Your task to perform on an android device: toggle location history Image 0: 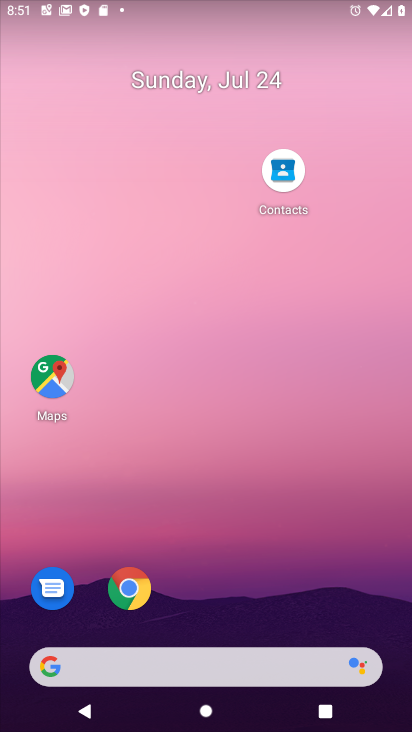
Step 0: press home button
Your task to perform on an android device: toggle location history Image 1: 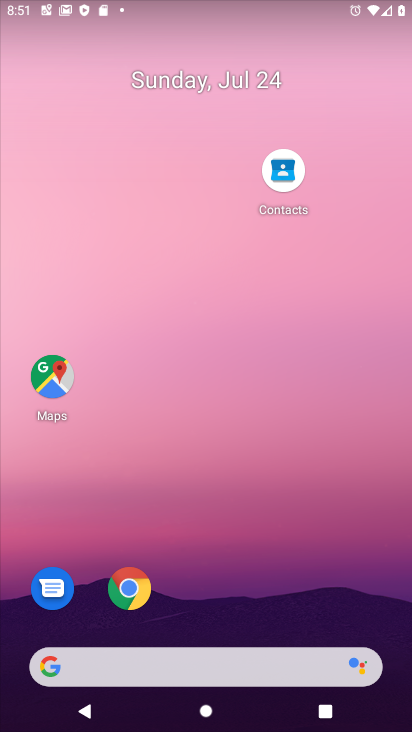
Step 1: drag from (197, 617) to (252, 11)
Your task to perform on an android device: toggle location history Image 2: 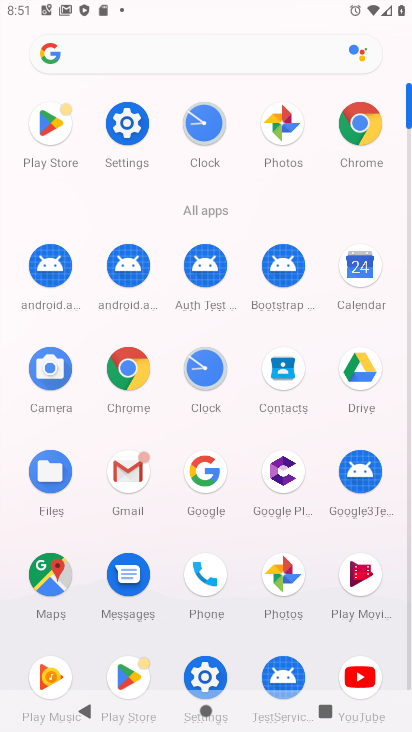
Step 2: click (128, 114)
Your task to perform on an android device: toggle location history Image 3: 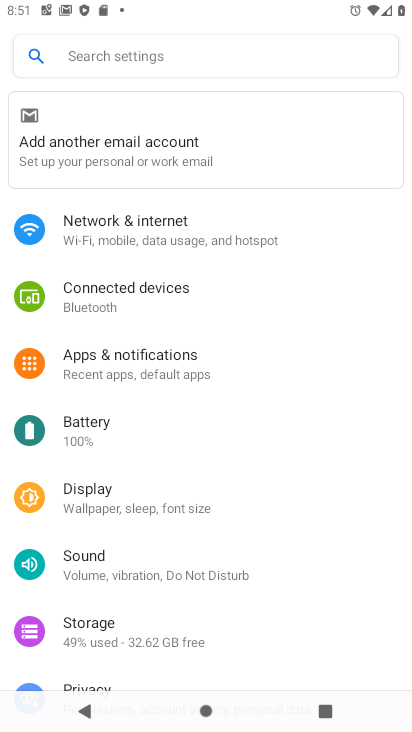
Step 3: drag from (157, 622) to (213, 223)
Your task to perform on an android device: toggle location history Image 4: 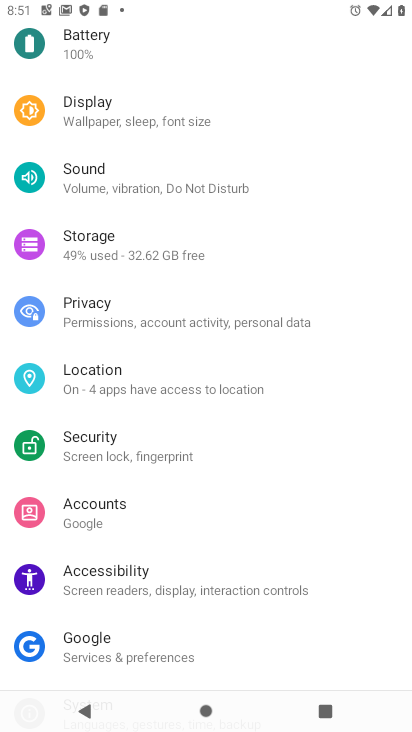
Step 4: click (135, 376)
Your task to perform on an android device: toggle location history Image 5: 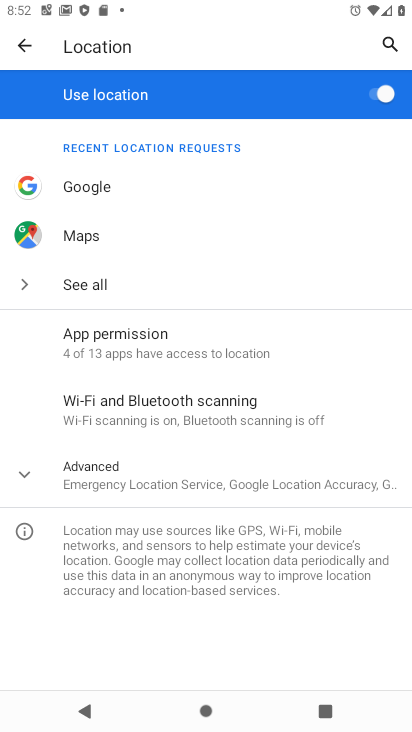
Step 5: click (29, 465)
Your task to perform on an android device: toggle location history Image 6: 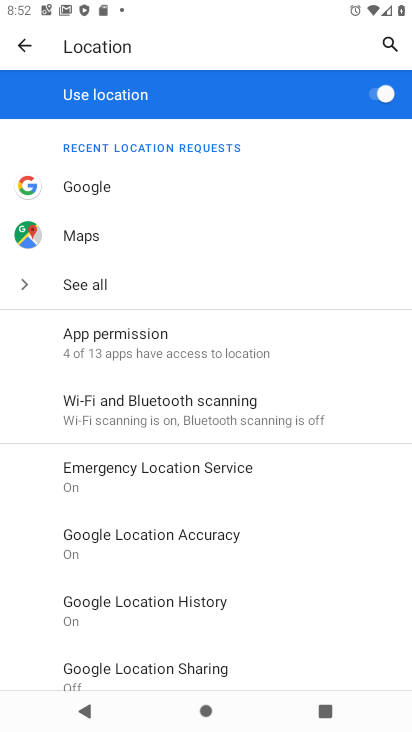
Step 6: click (96, 605)
Your task to perform on an android device: toggle location history Image 7: 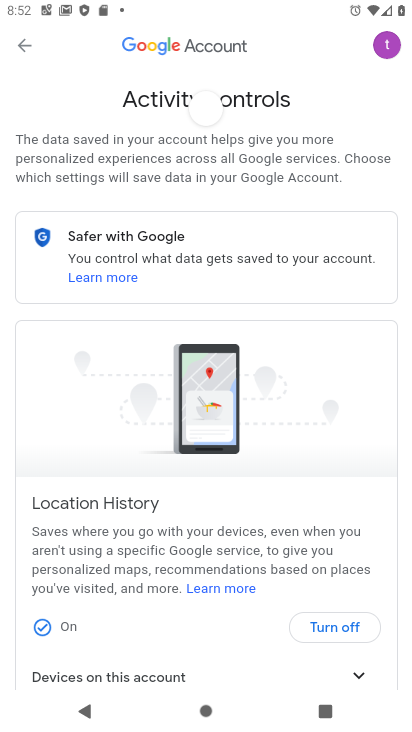
Step 7: task complete